Your task to perform on an android device: Go to Maps Image 0: 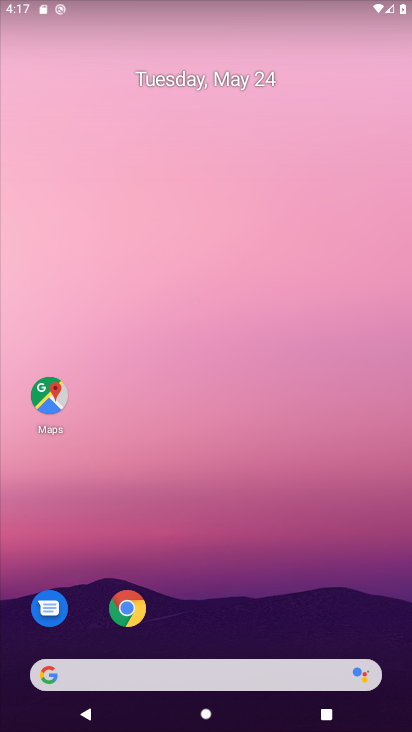
Step 0: click (52, 386)
Your task to perform on an android device: Go to Maps Image 1: 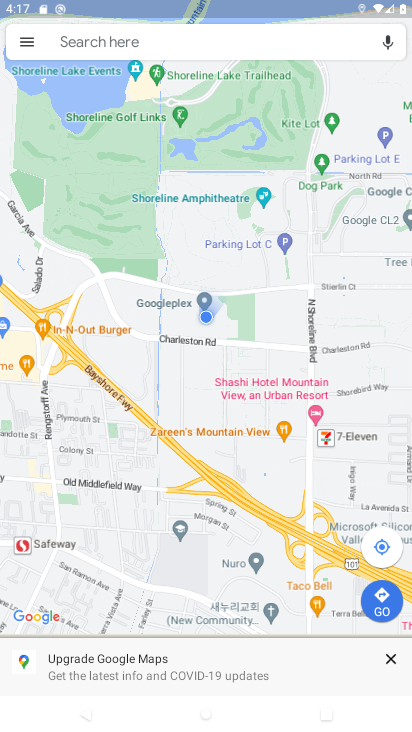
Step 1: click (231, 35)
Your task to perform on an android device: Go to Maps Image 2: 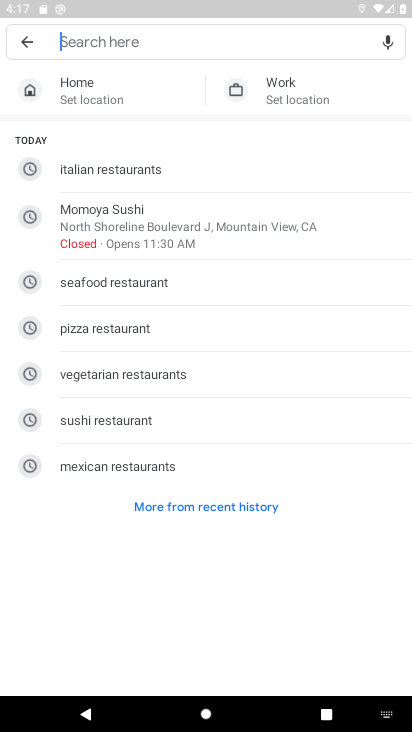
Step 2: click (23, 44)
Your task to perform on an android device: Go to Maps Image 3: 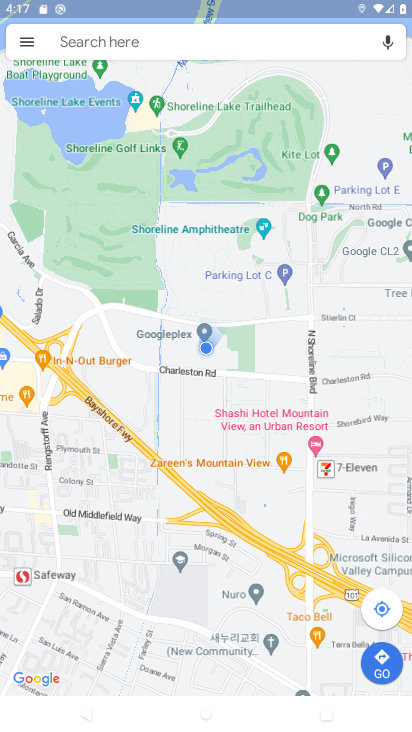
Step 3: task complete